Your task to perform on an android device: toggle translation in the chrome app Image 0: 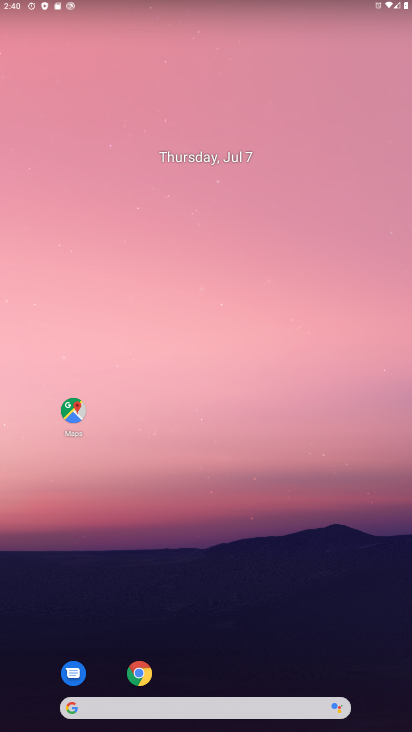
Step 0: drag from (229, 661) to (180, 105)
Your task to perform on an android device: toggle translation in the chrome app Image 1: 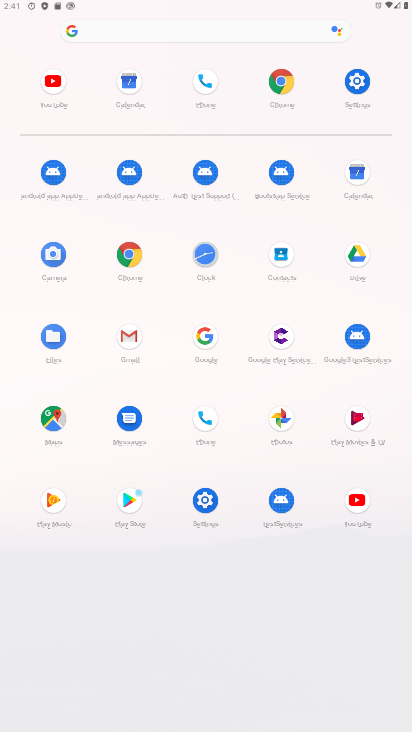
Step 1: click (264, 81)
Your task to perform on an android device: toggle translation in the chrome app Image 2: 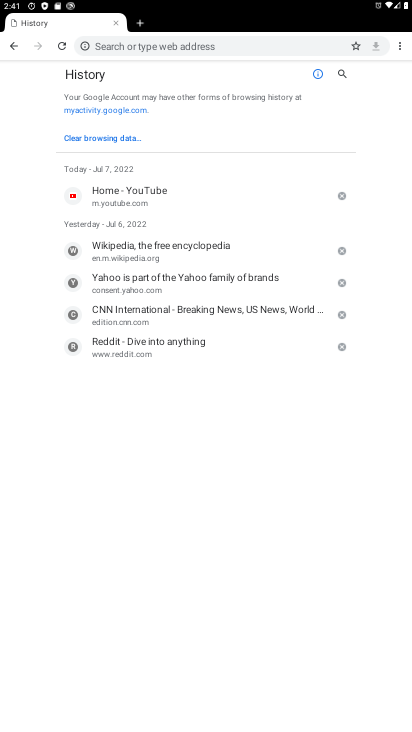
Step 2: click (400, 48)
Your task to perform on an android device: toggle translation in the chrome app Image 3: 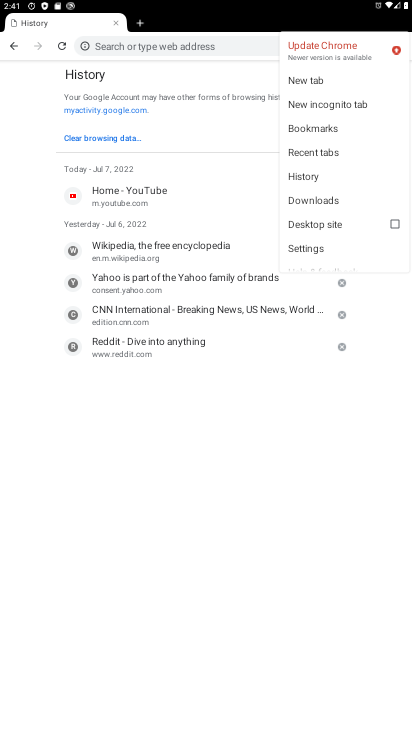
Step 3: click (291, 247)
Your task to perform on an android device: toggle translation in the chrome app Image 4: 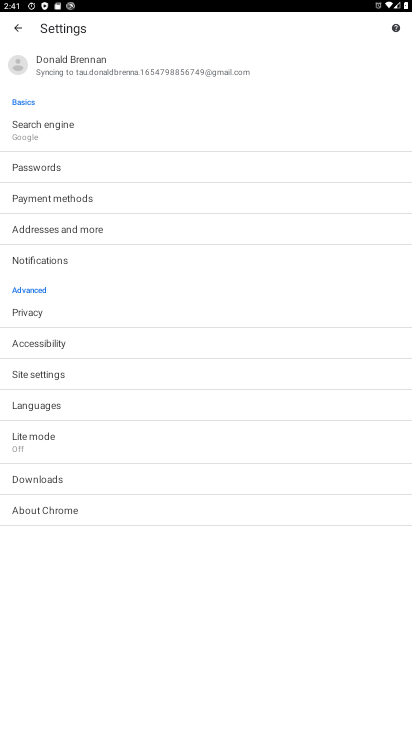
Step 4: click (52, 408)
Your task to perform on an android device: toggle translation in the chrome app Image 5: 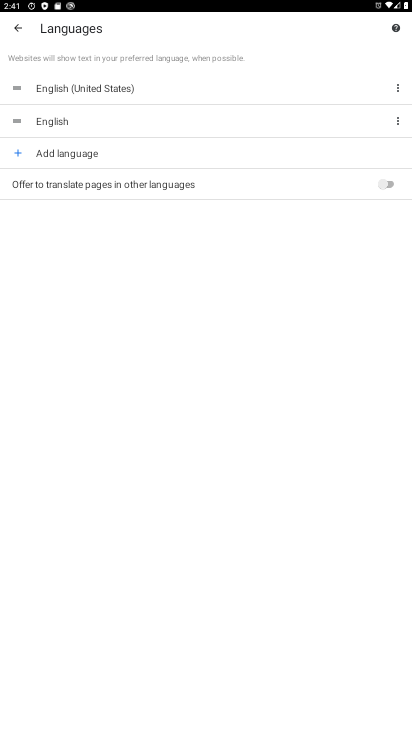
Step 5: click (384, 185)
Your task to perform on an android device: toggle translation in the chrome app Image 6: 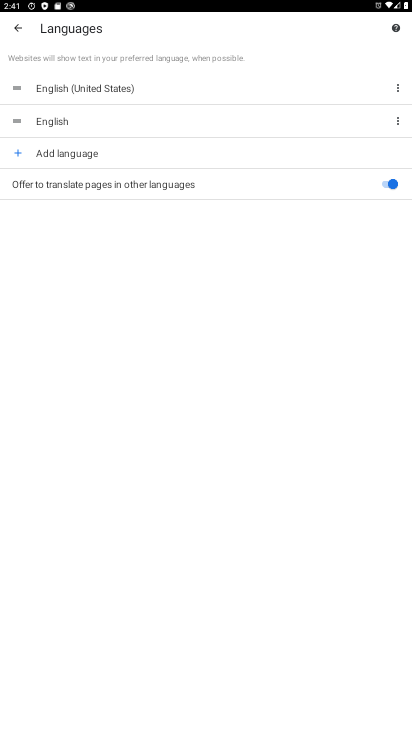
Step 6: task complete